Your task to perform on an android device: turn on sleep mode Image 0: 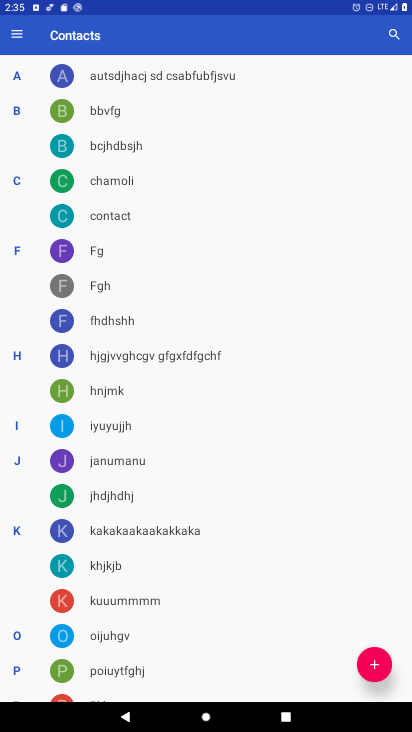
Step 0: press home button
Your task to perform on an android device: turn on sleep mode Image 1: 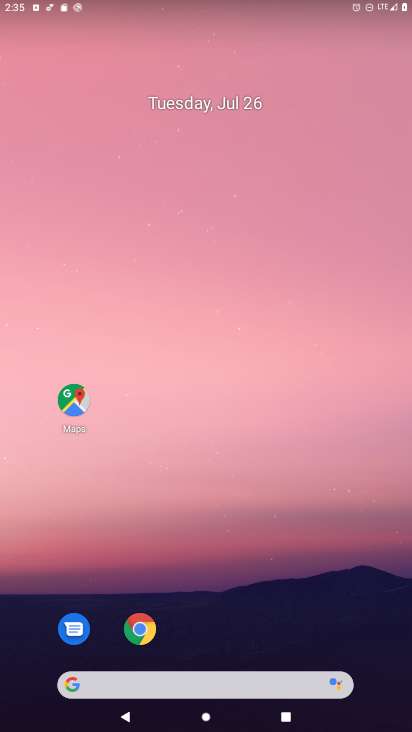
Step 1: drag from (385, 655) to (364, 215)
Your task to perform on an android device: turn on sleep mode Image 2: 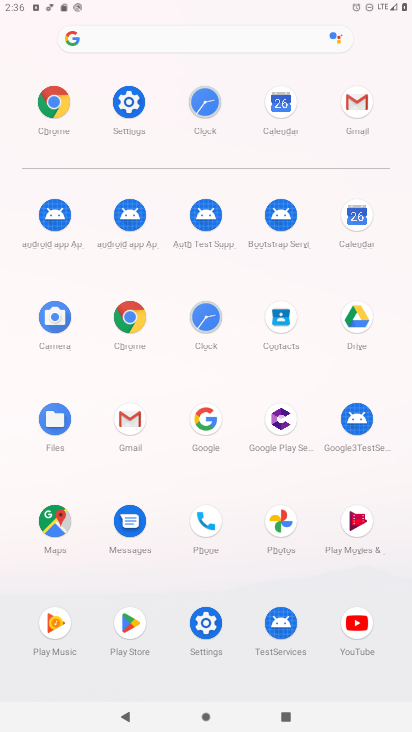
Step 2: click (206, 622)
Your task to perform on an android device: turn on sleep mode Image 3: 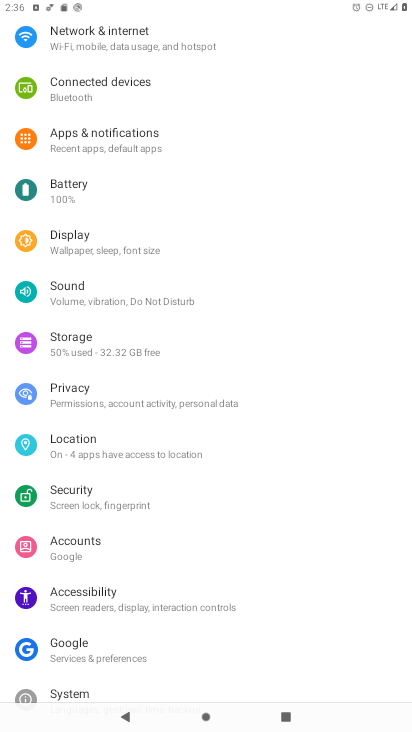
Step 3: click (77, 245)
Your task to perform on an android device: turn on sleep mode Image 4: 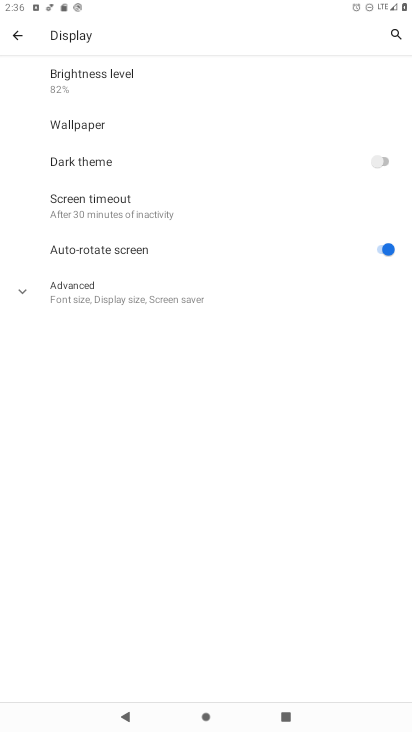
Step 4: click (24, 286)
Your task to perform on an android device: turn on sleep mode Image 5: 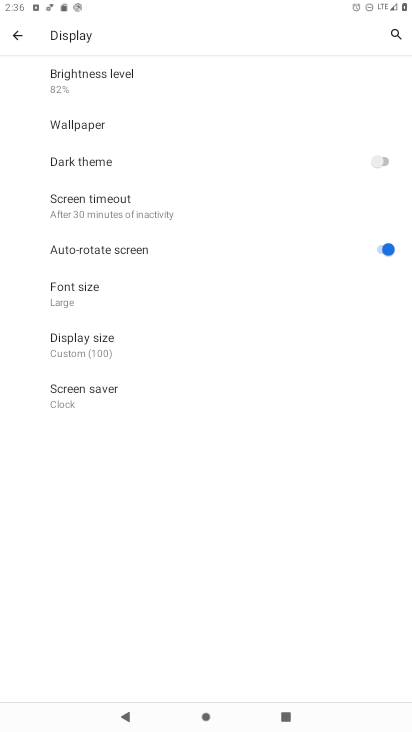
Step 5: task complete